Your task to perform on an android device: uninstall "Reddit" Image 0: 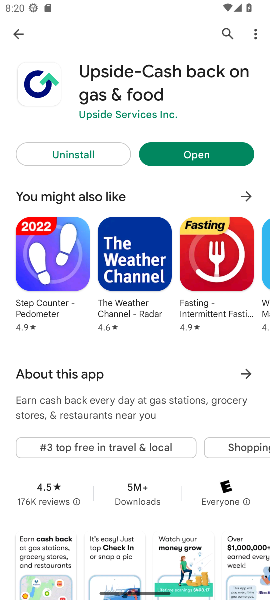
Step 0: drag from (151, 95) to (170, 547)
Your task to perform on an android device: uninstall "Reddit" Image 1: 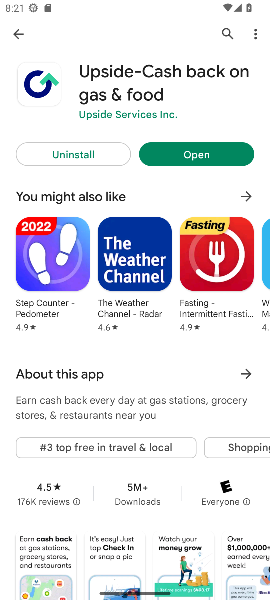
Step 1: click (224, 29)
Your task to perform on an android device: uninstall "Reddit" Image 2: 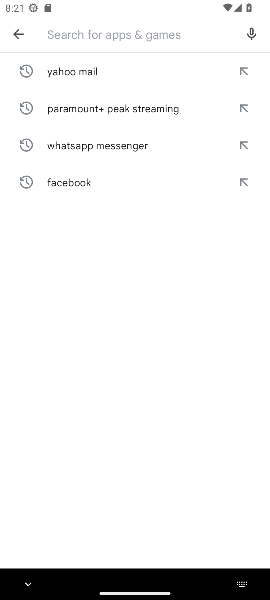
Step 2: type "Reddit"
Your task to perform on an android device: uninstall "Reddit" Image 3: 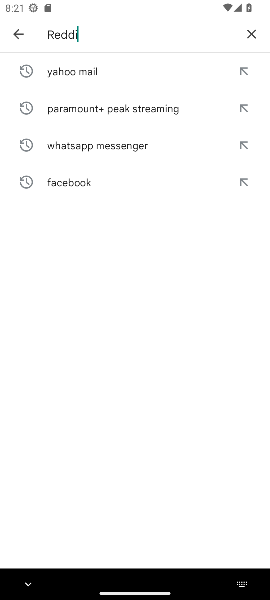
Step 3: type ""
Your task to perform on an android device: uninstall "Reddit" Image 4: 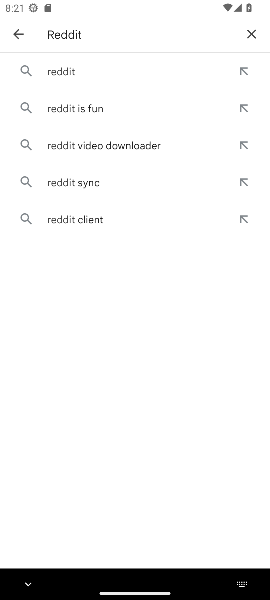
Step 4: click (82, 67)
Your task to perform on an android device: uninstall "Reddit" Image 5: 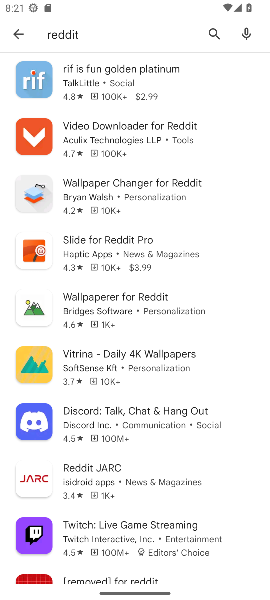
Step 5: drag from (124, 113) to (253, 599)
Your task to perform on an android device: uninstall "Reddit" Image 6: 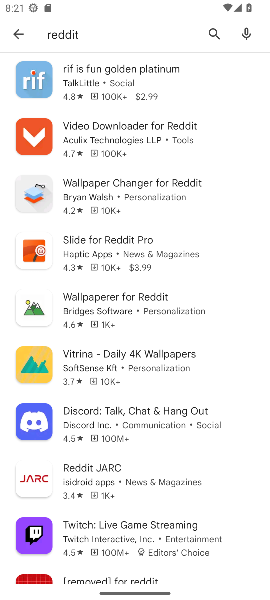
Step 6: click (219, 29)
Your task to perform on an android device: uninstall "Reddit" Image 7: 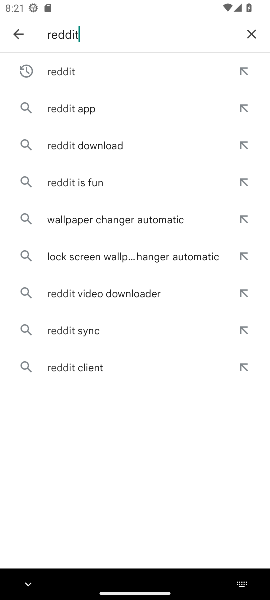
Step 7: click (65, 74)
Your task to perform on an android device: uninstall "Reddit" Image 8: 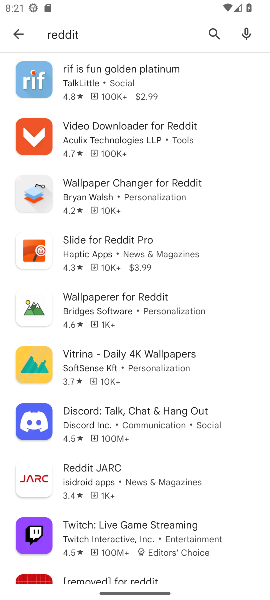
Step 8: task complete